Your task to perform on an android device: turn vacation reply on in the gmail app Image 0: 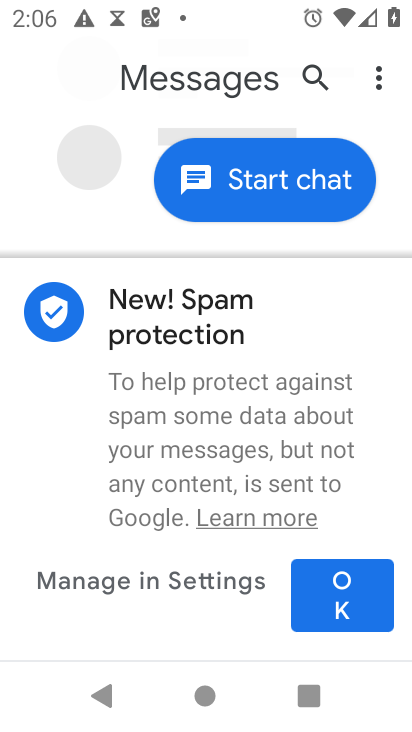
Step 0: press back button
Your task to perform on an android device: turn vacation reply on in the gmail app Image 1: 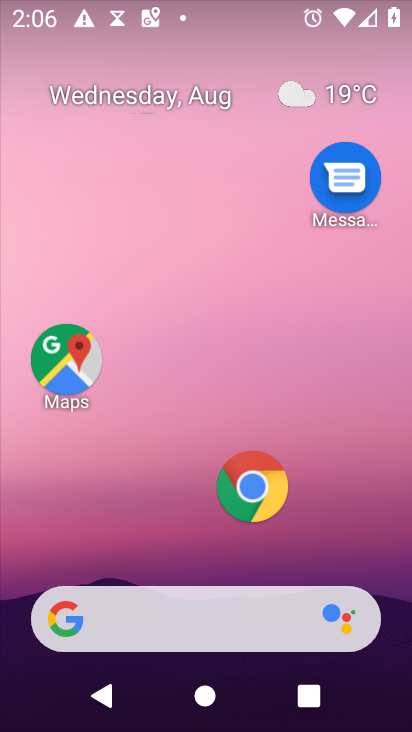
Step 1: drag from (147, 465) to (240, 40)
Your task to perform on an android device: turn vacation reply on in the gmail app Image 2: 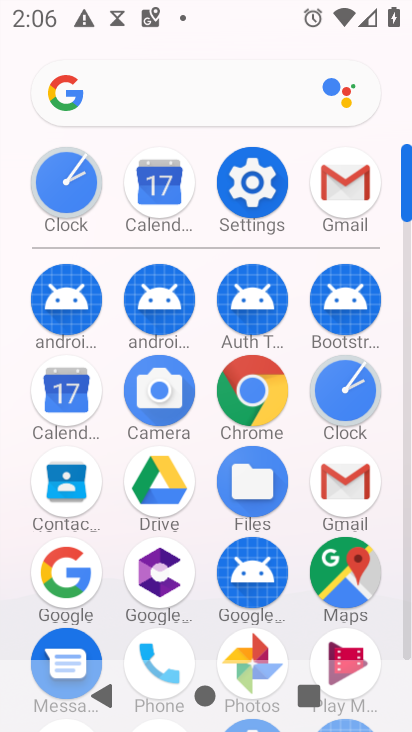
Step 2: click (329, 176)
Your task to perform on an android device: turn vacation reply on in the gmail app Image 3: 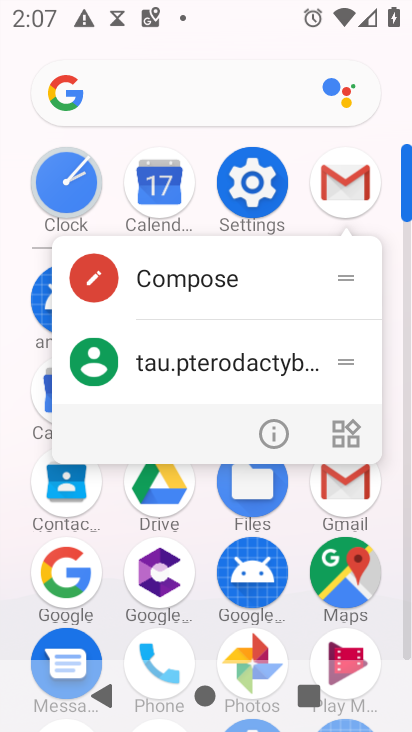
Step 3: click (320, 202)
Your task to perform on an android device: turn vacation reply on in the gmail app Image 4: 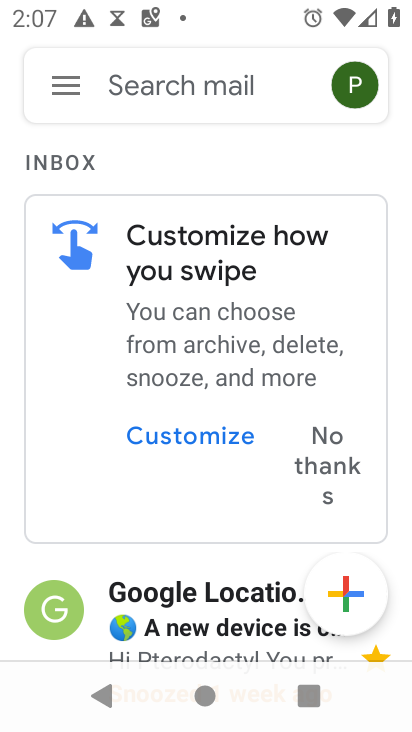
Step 4: click (59, 90)
Your task to perform on an android device: turn vacation reply on in the gmail app Image 5: 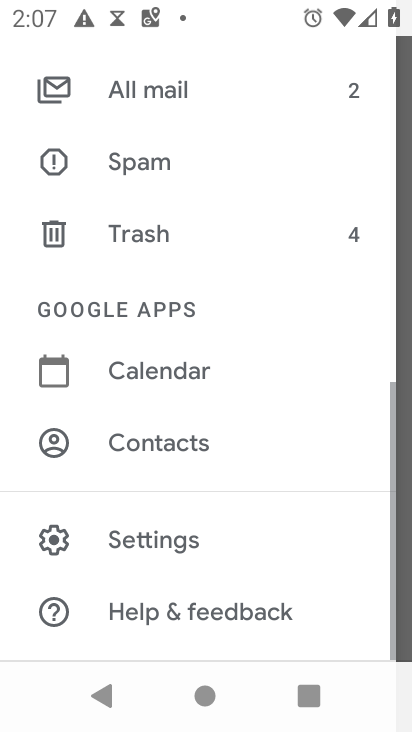
Step 5: click (159, 562)
Your task to perform on an android device: turn vacation reply on in the gmail app Image 6: 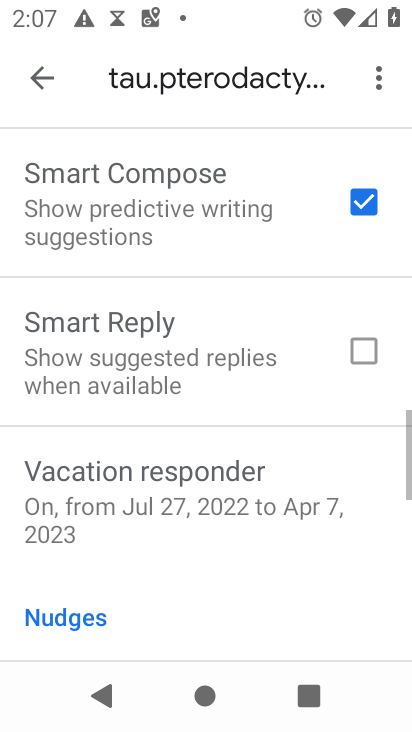
Step 6: drag from (163, 589) to (250, 364)
Your task to perform on an android device: turn vacation reply on in the gmail app Image 7: 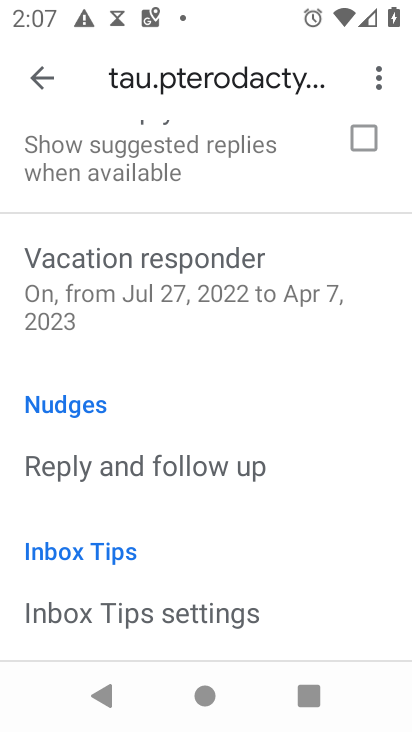
Step 7: click (90, 292)
Your task to perform on an android device: turn vacation reply on in the gmail app Image 8: 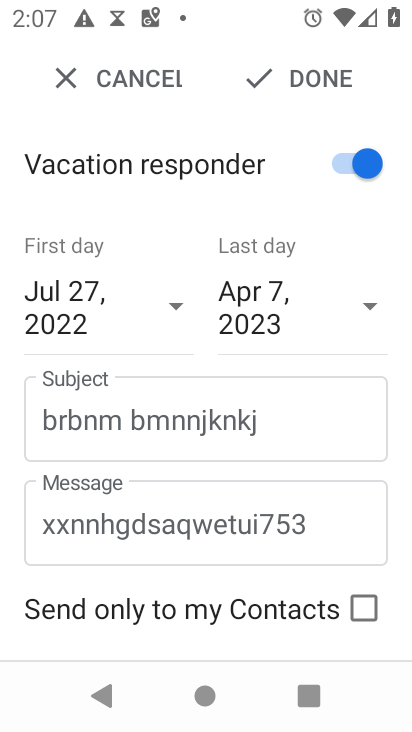
Step 8: task complete